Your task to perform on an android device: change the upload size in google photos Image 0: 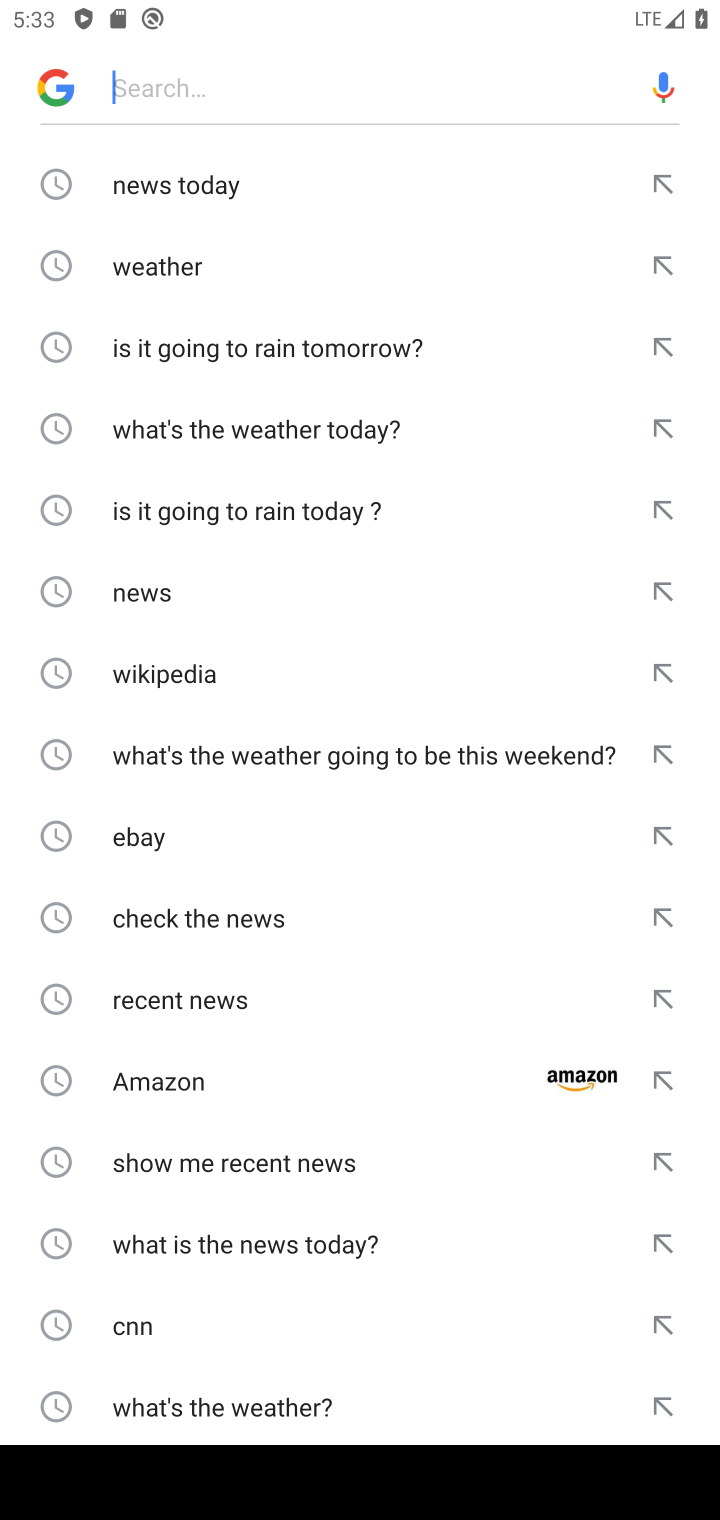
Step 0: press back button
Your task to perform on an android device: change the upload size in google photos Image 1: 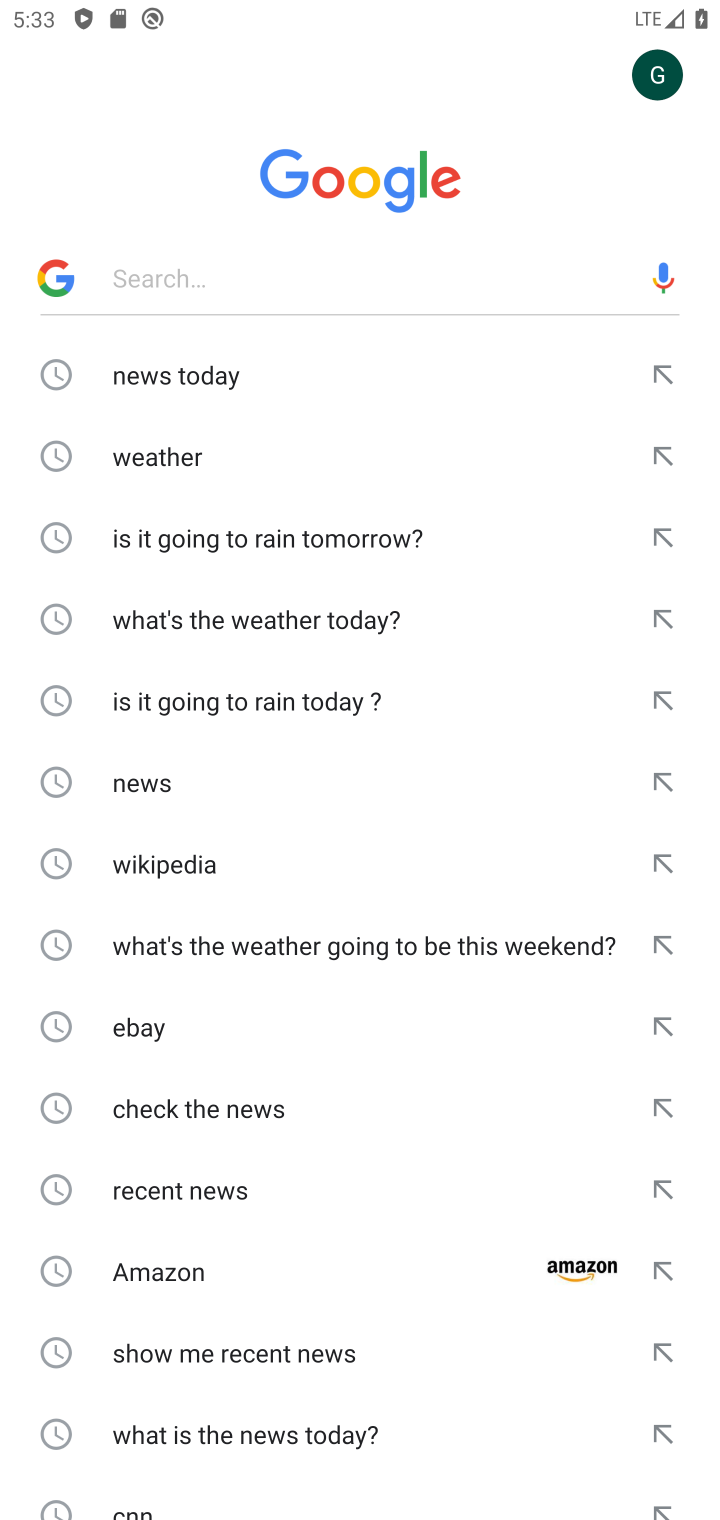
Step 1: press home button
Your task to perform on an android device: change the upload size in google photos Image 2: 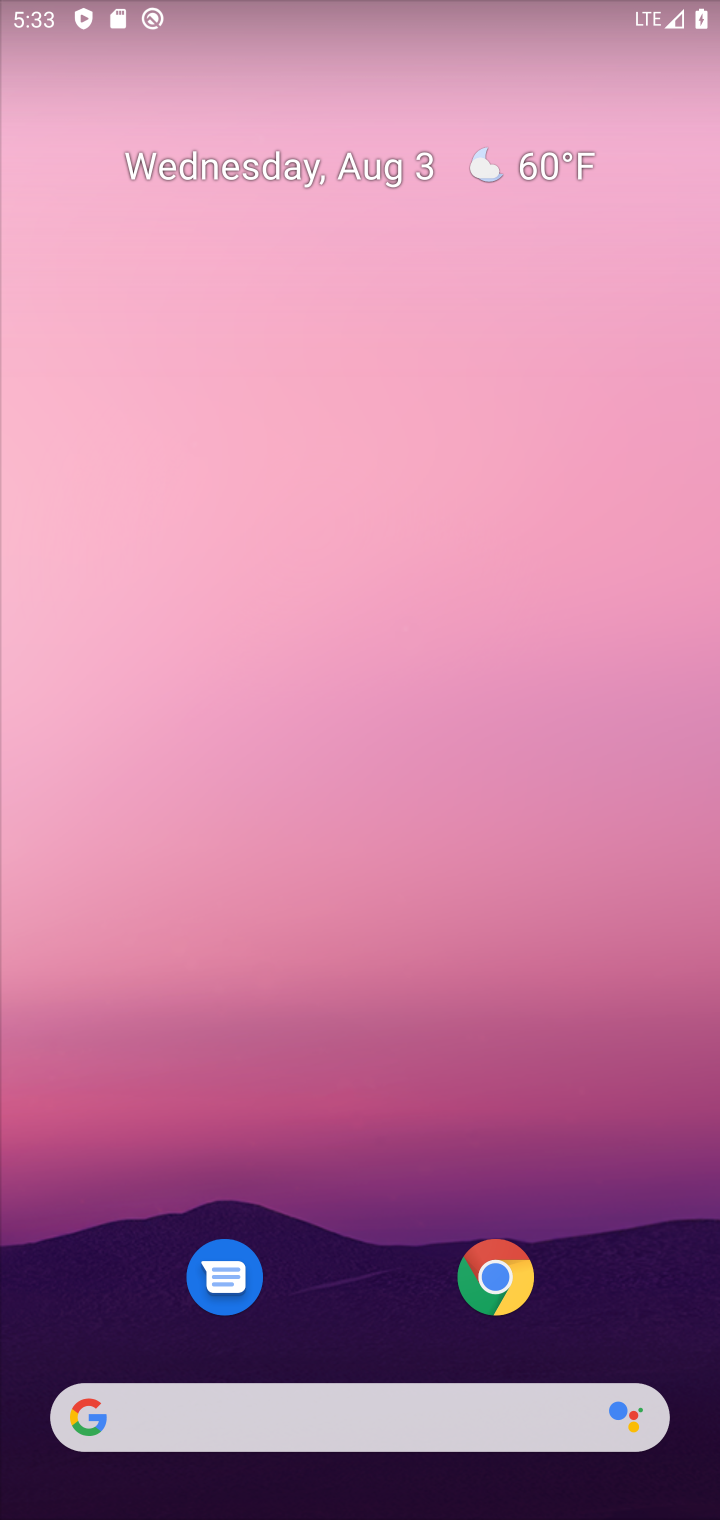
Step 2: drag from (360, 1310) to (449, 162)
Your task to perform on an android device: change the upload size in google photos Image 3: 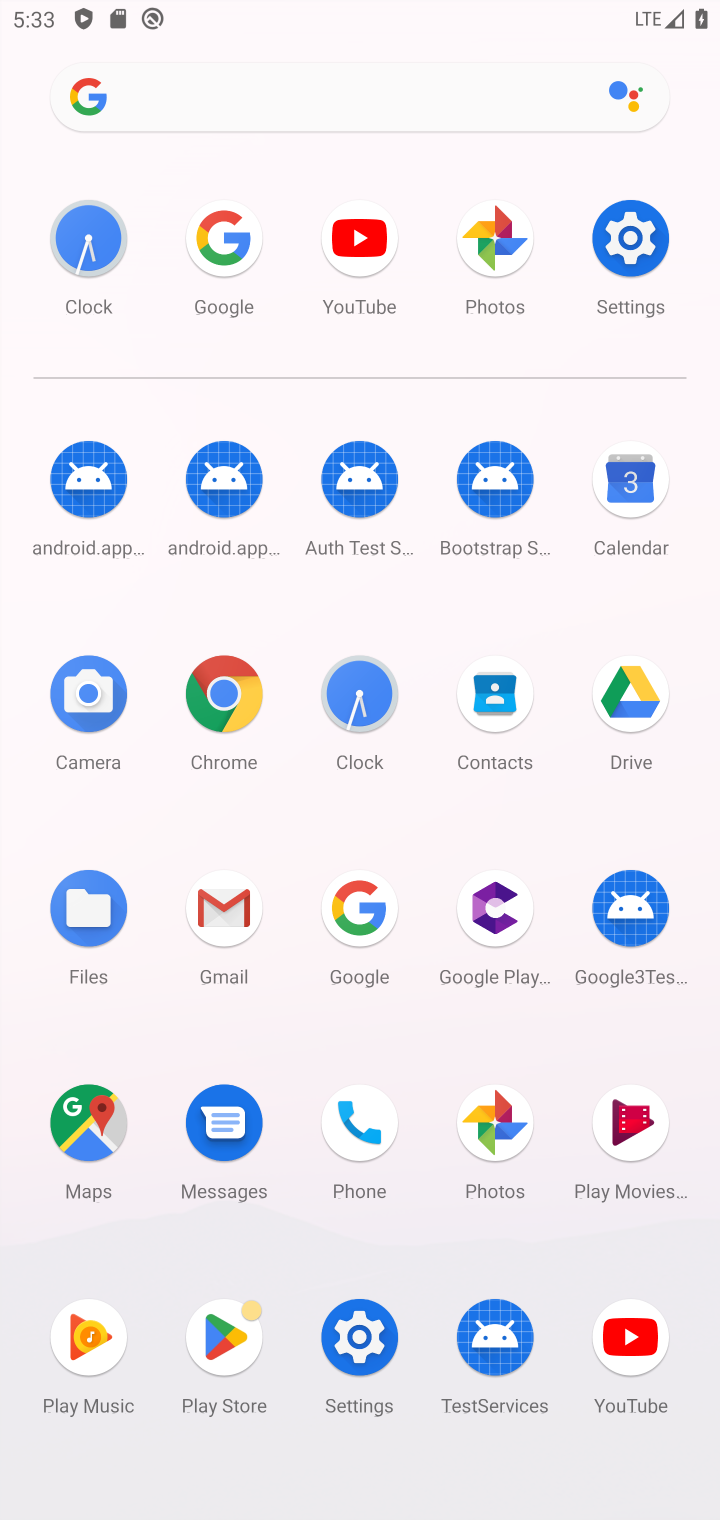
Step 3: click (480, 1123)
Your task to perform on an android device: change the upload size in google photos Image 4: 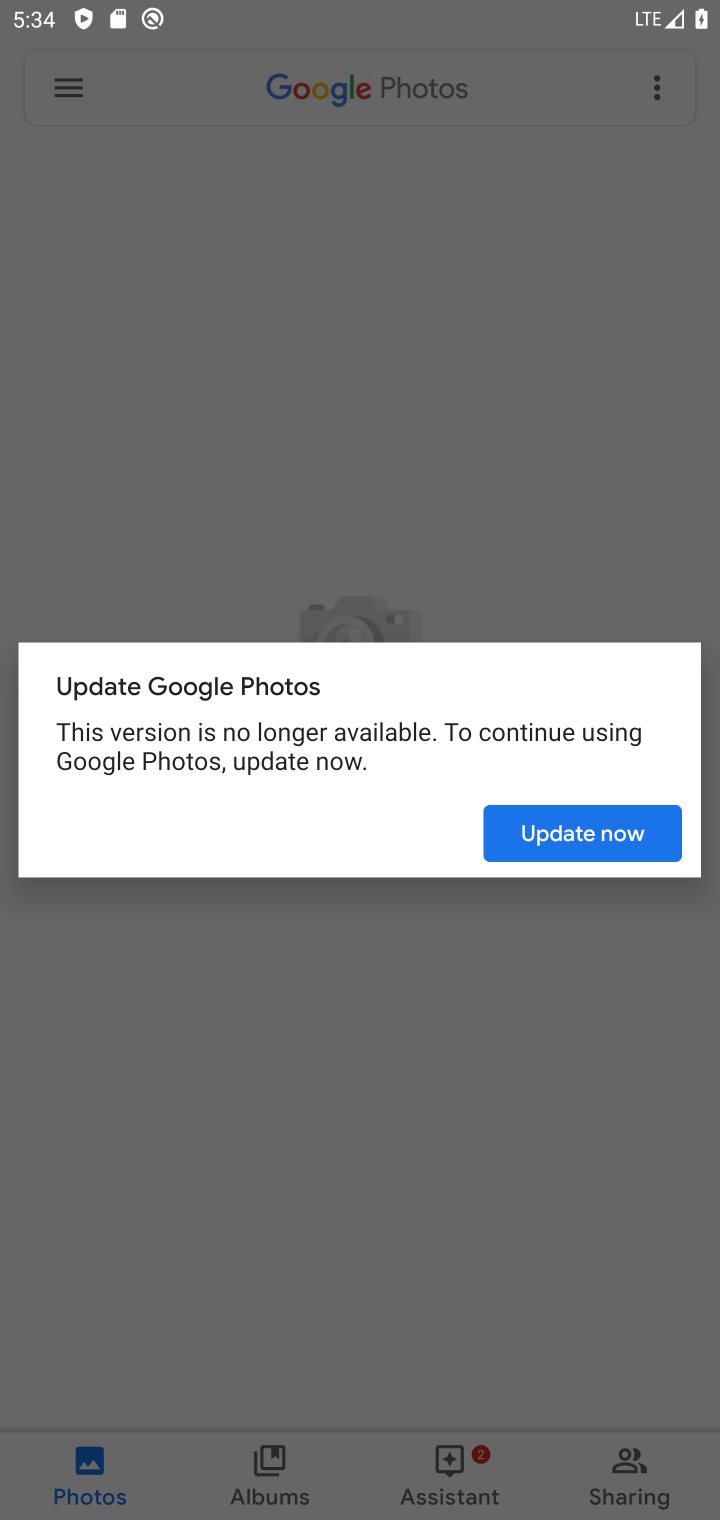
Step 4: click (186, 242)
Your task to perform on an android device: change the upload size in google photos Image 5: 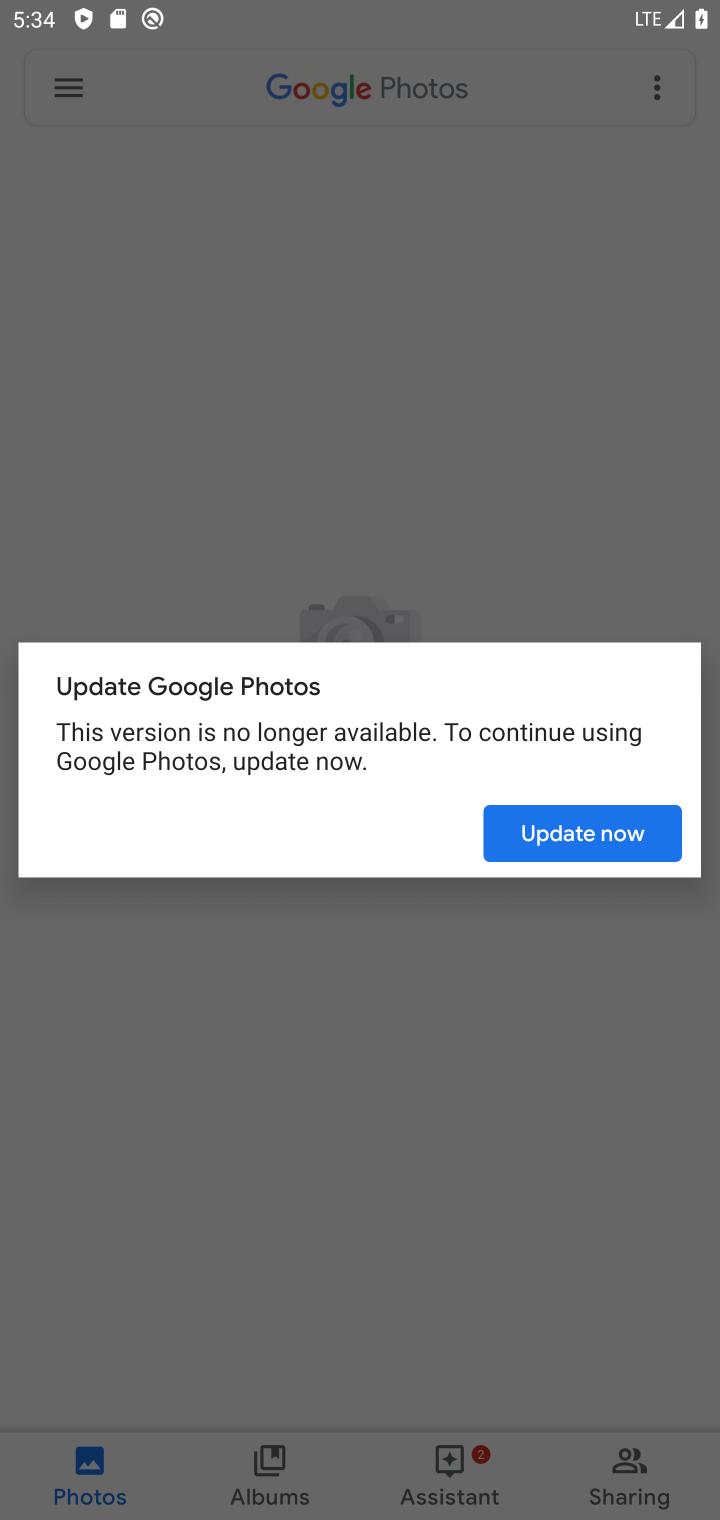
Step 5: press back button
Your task to perform on an android device: change the upload size in google photos Image 6: 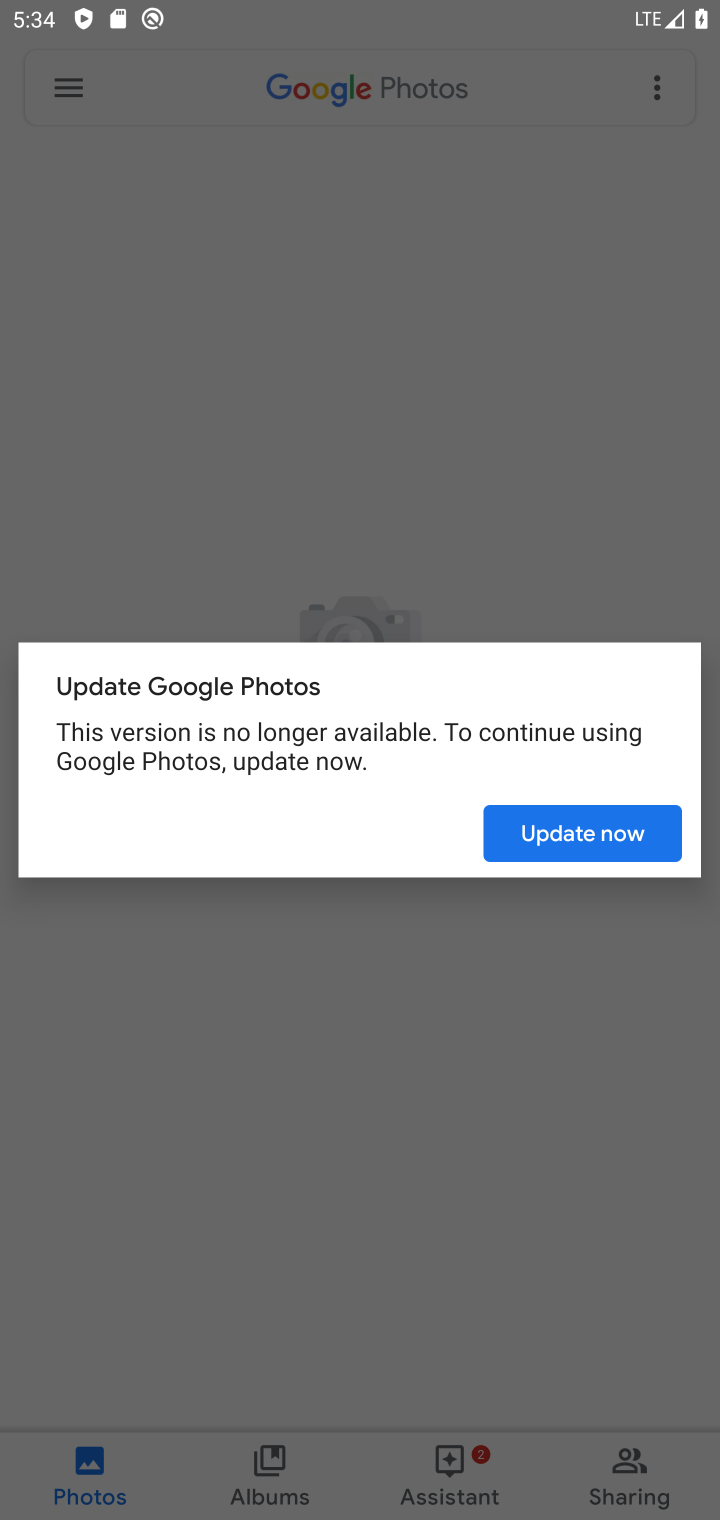
Step 6: press home button
Your task to perform on an android device: change the upload size in google photos Image 7: 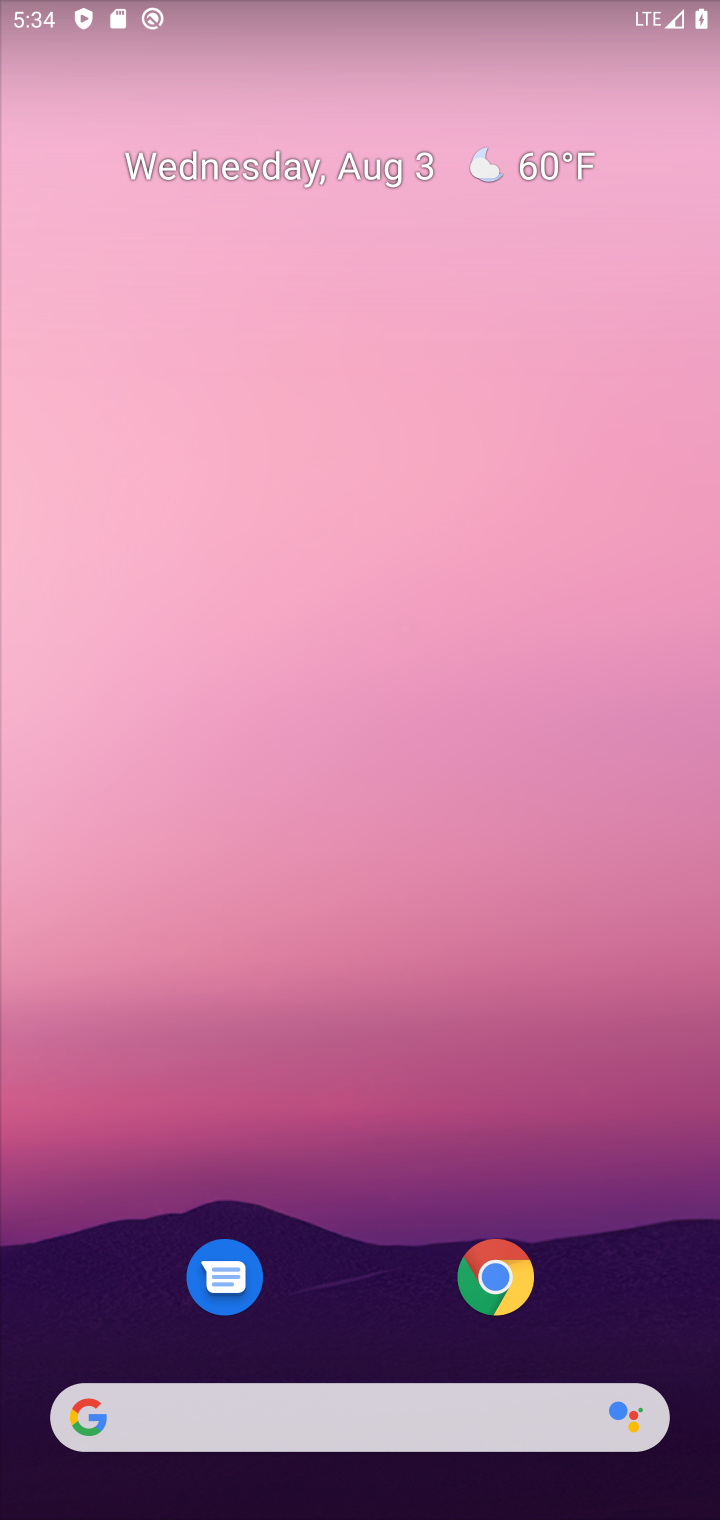
Step 7: drag from (401, 1303) to (401, 169)
Your task to perform on an android device: change the upload size in google photos Image 8: 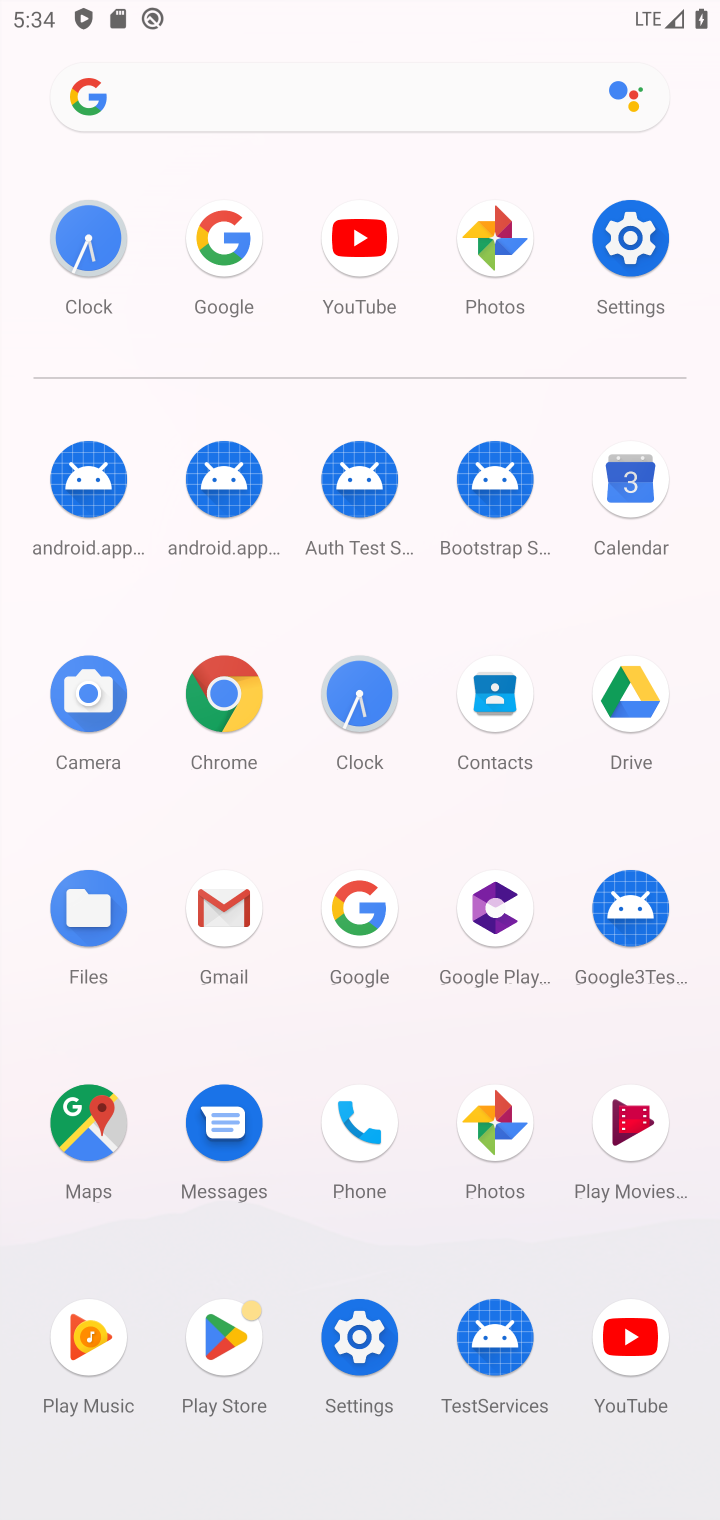
Step 8: click (485, 257)
Your task to perform on an android device: change the upload size in google photos Image 9: 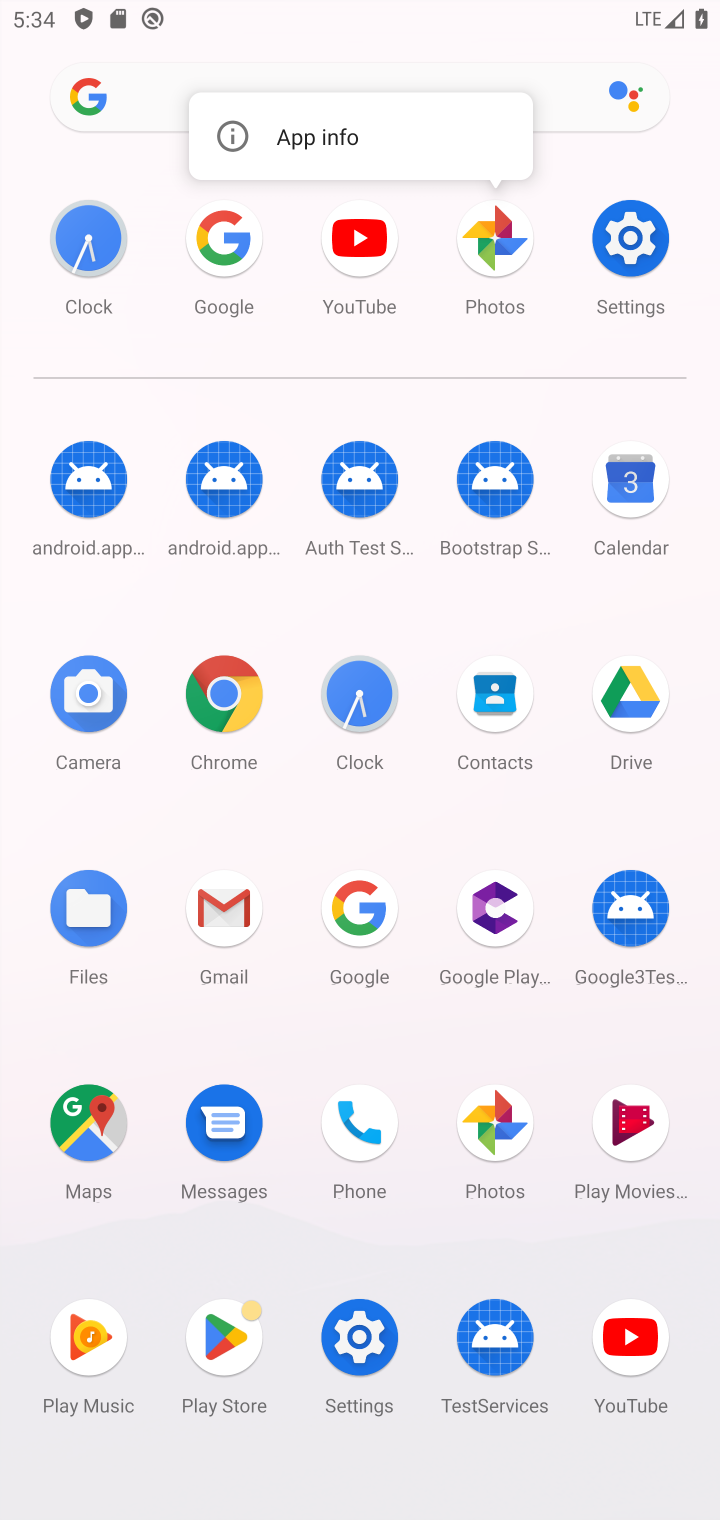
Step 9: click (488, 248)
Your task to perform on an android device: change the upload size in google photos Image 10: 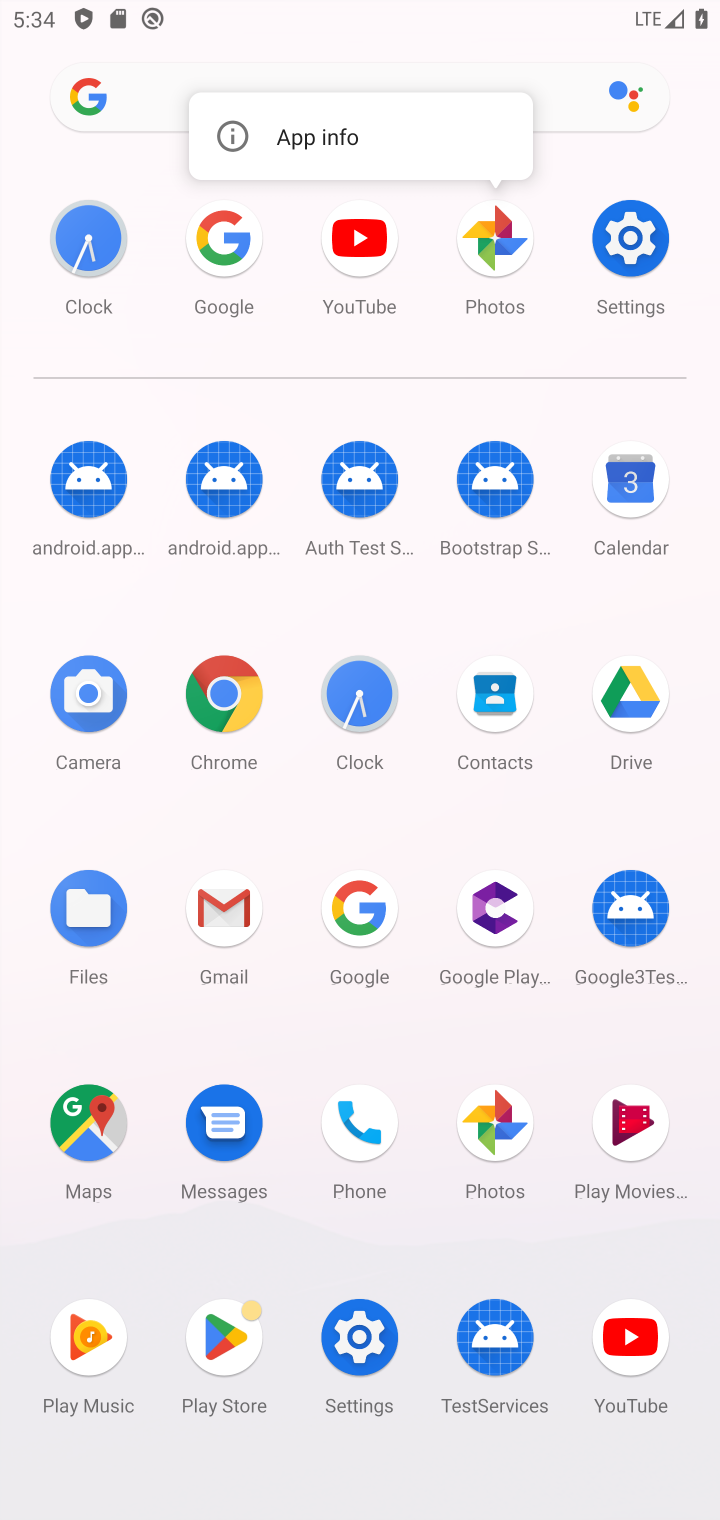
Step 10: click (482, 253)
Your task to perform on an android device: change the upload size in google photos Image 11: 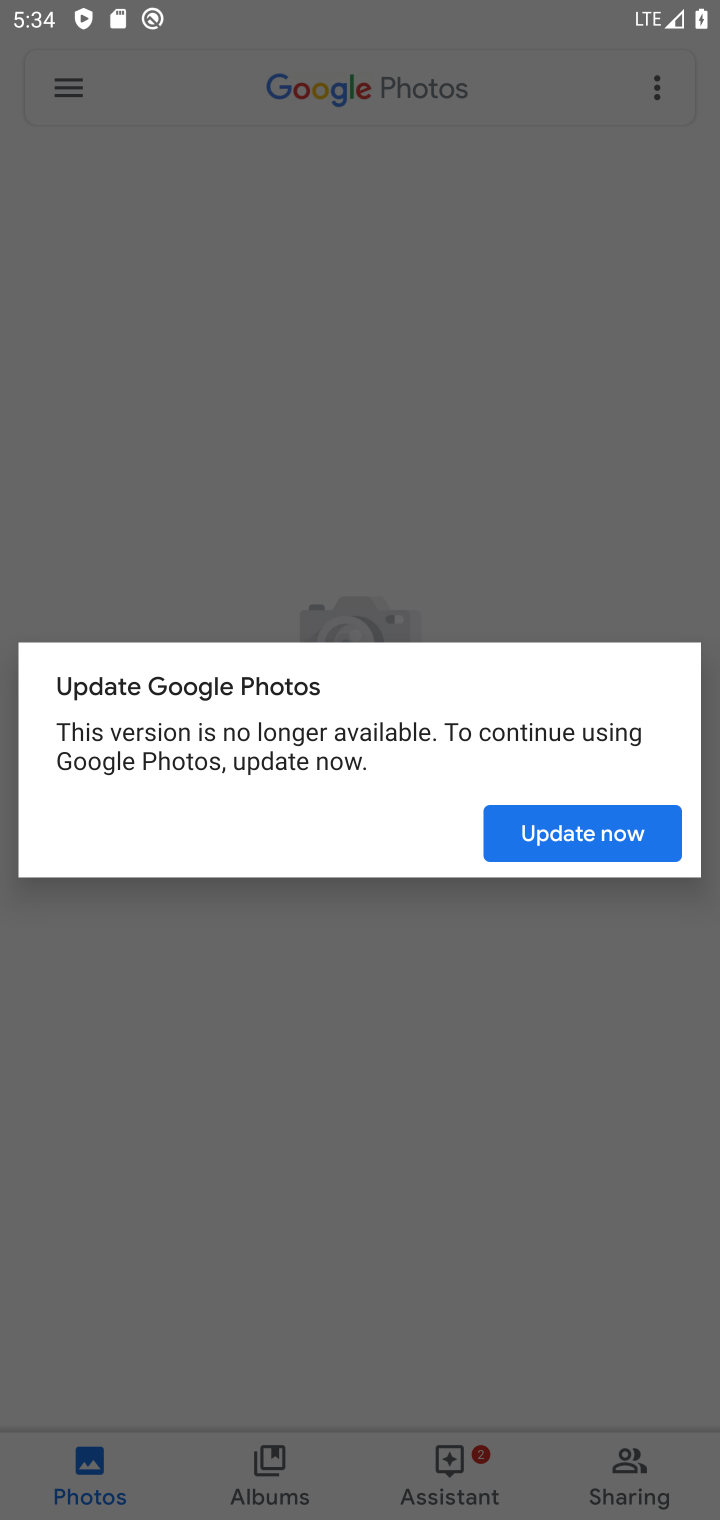
Step 11: click (584, 834)
Your task to perform on an android device: change the upload size in google photos Image 12: 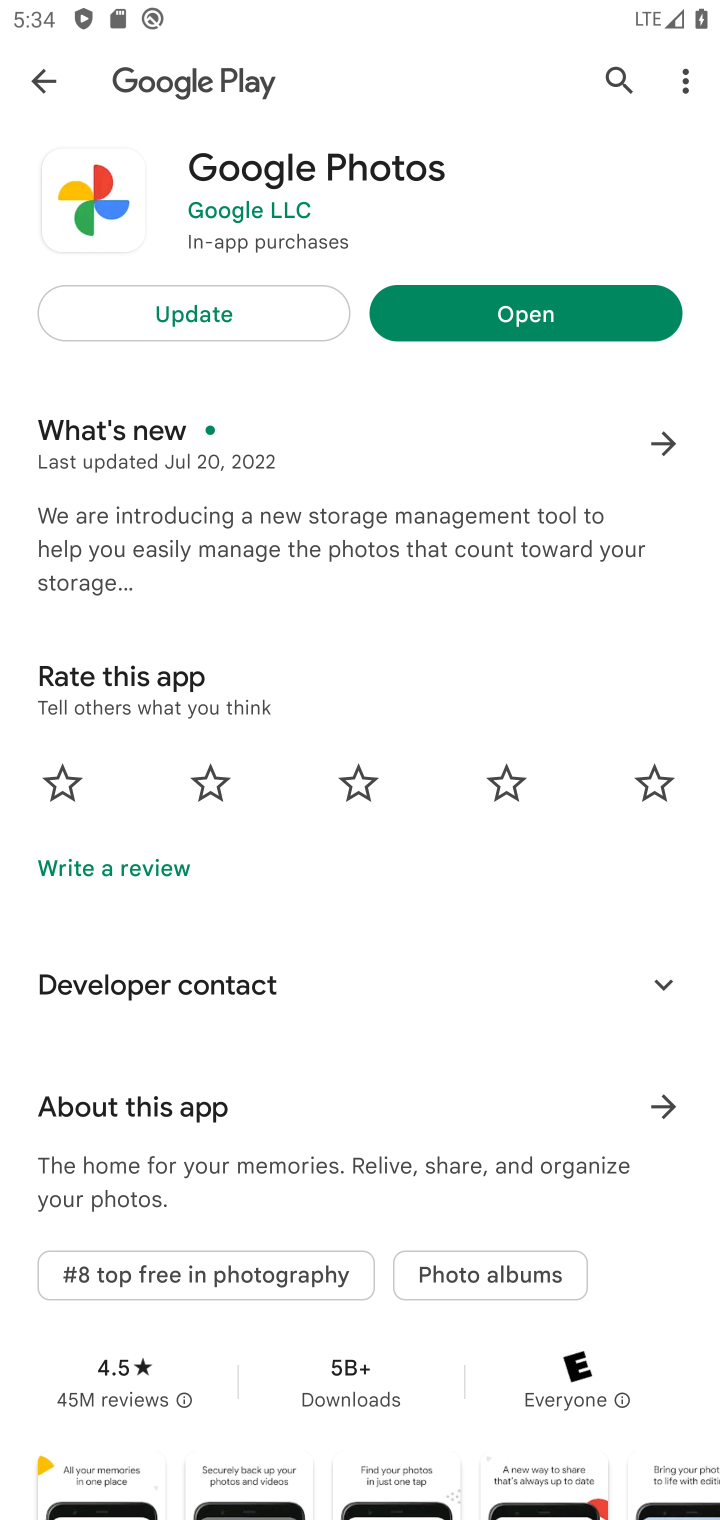
Step 12: click (523, 300)
Your task to perform on an android device: change the upload size in google photos Image 13: 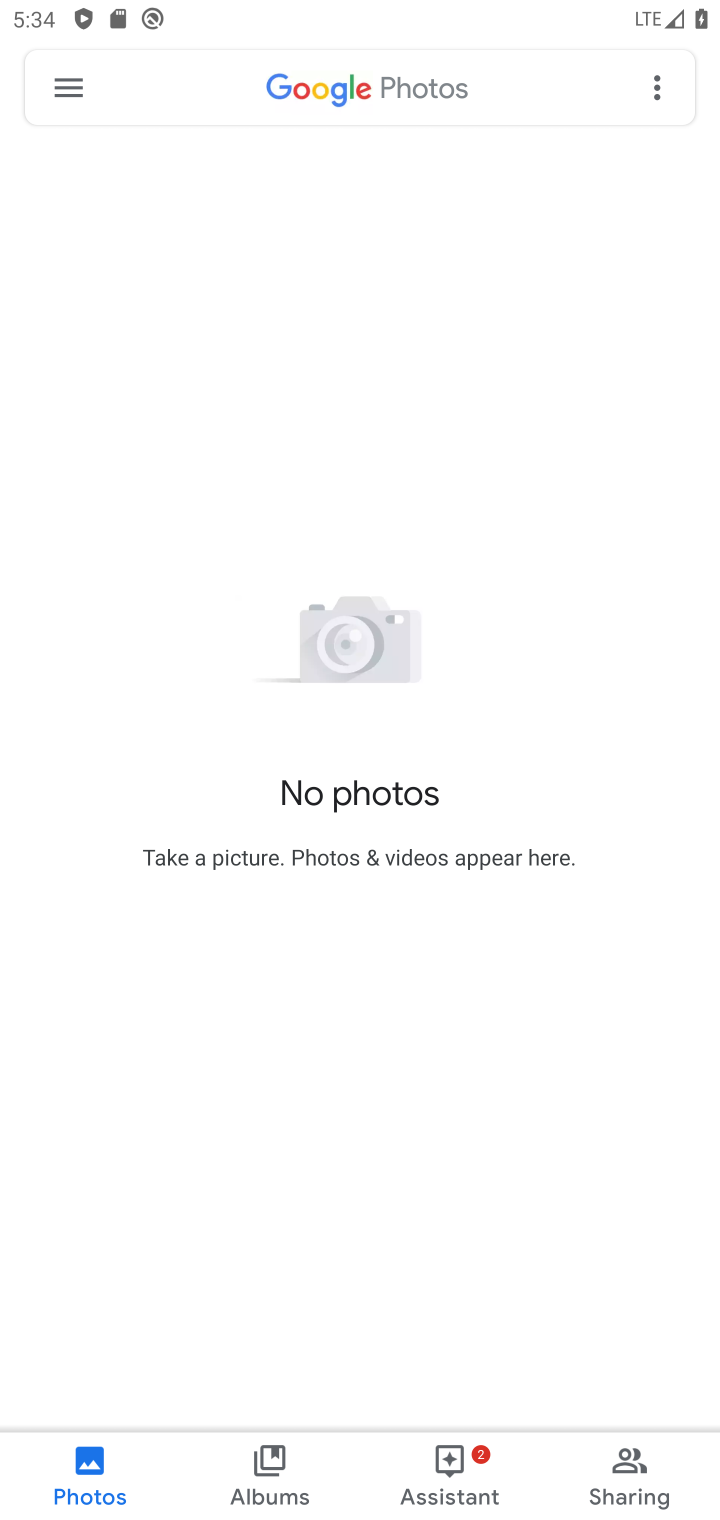
Step 13: click (63, 97)
Your task to perform on an android device: change the upload size in google photos Image 14: 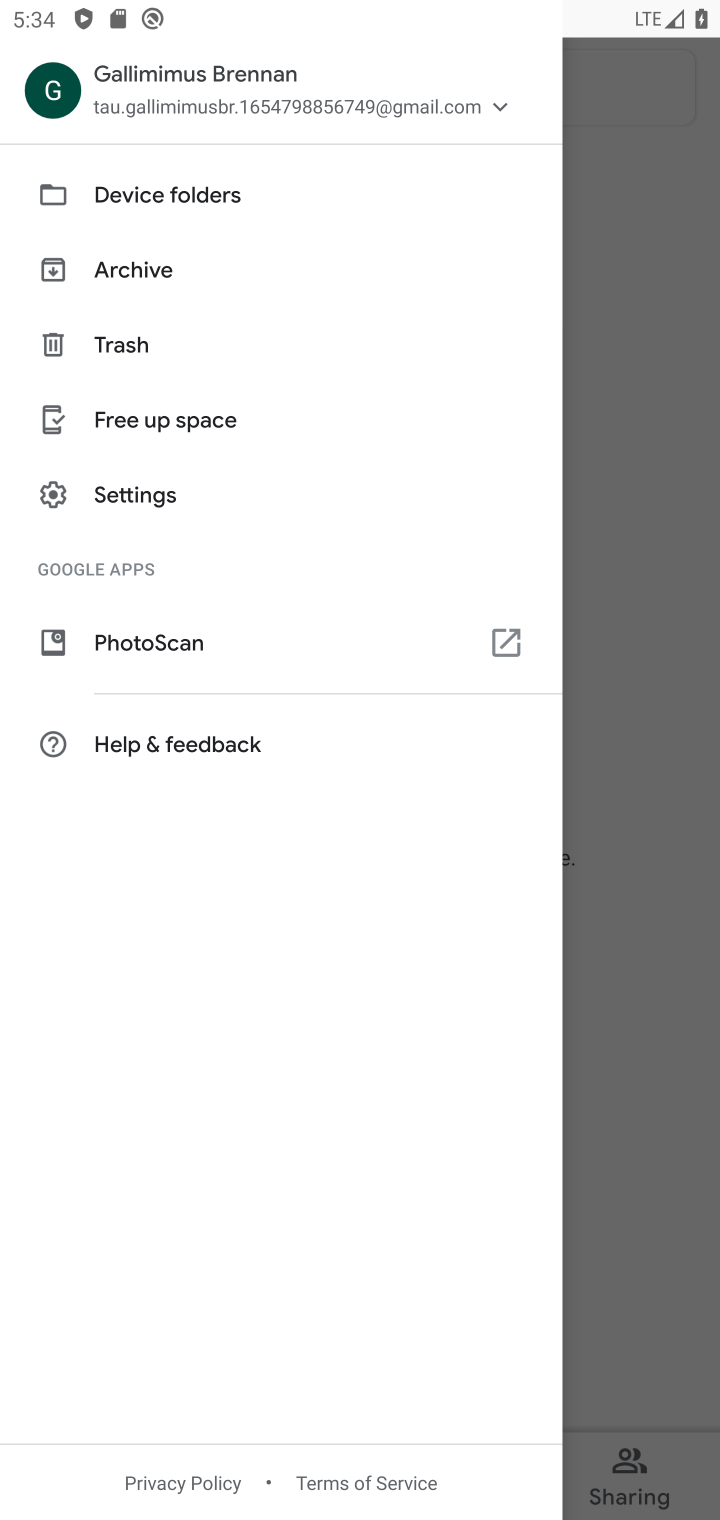
Step 14: click (189, 486)
Your task to perform on an android device: change the upload size in google photos Image 15: 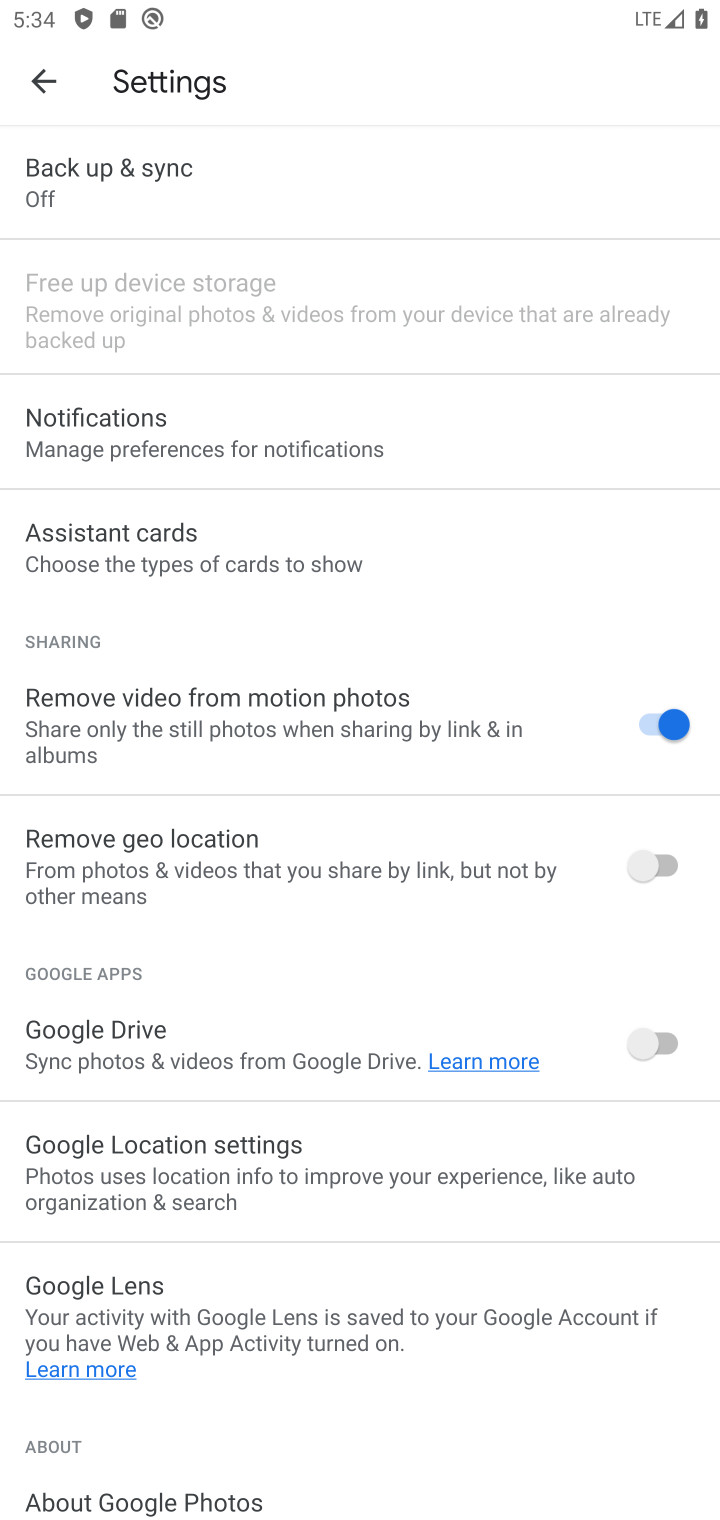
Step 15: click (297, 173)
Your task to perform on an android device: change the upload size in google photos Image 16: 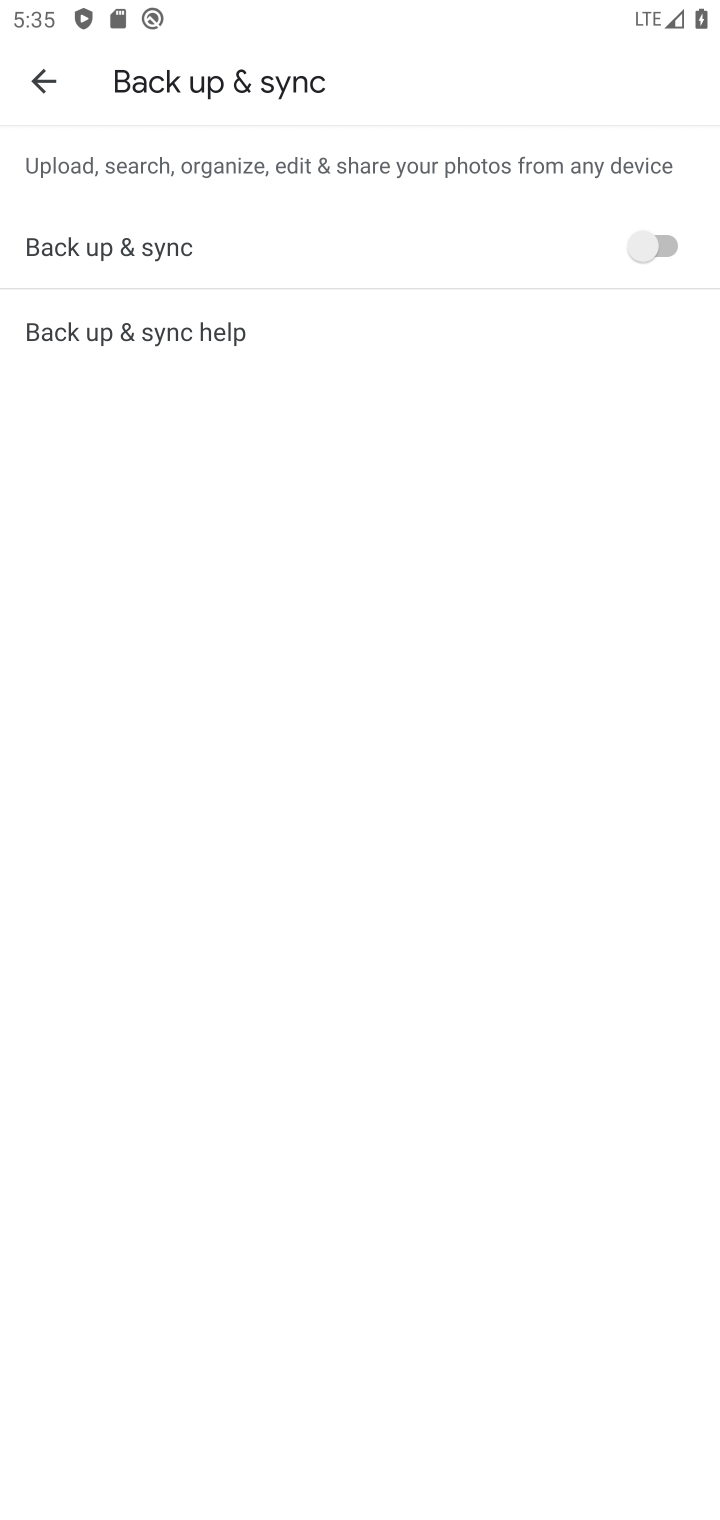
Step 16: click (633, 252)
Your task to perform on an android device: change the upload size in google photos Image 17: 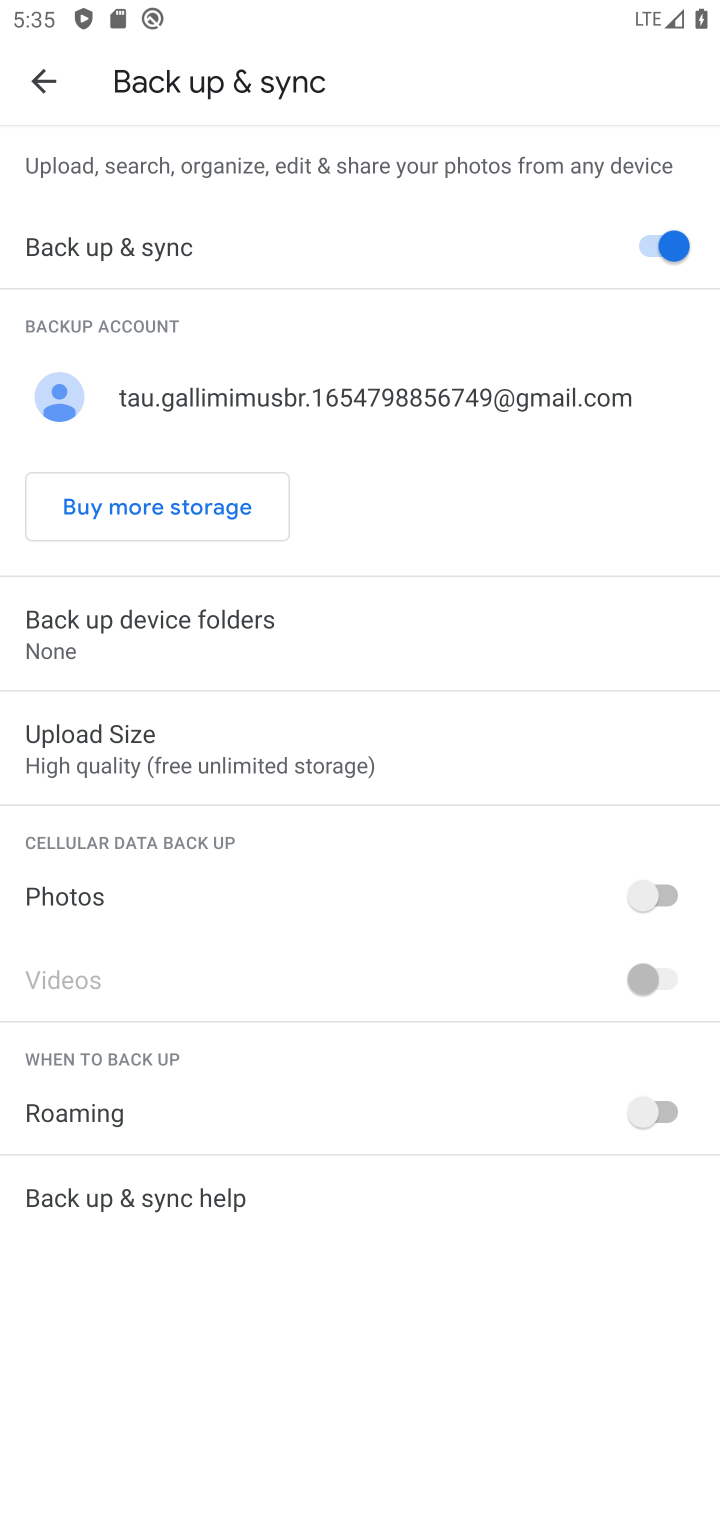
Step 17: click (206, 769)
Your task to perform on an android device: change the upload size in google photos Image 18: 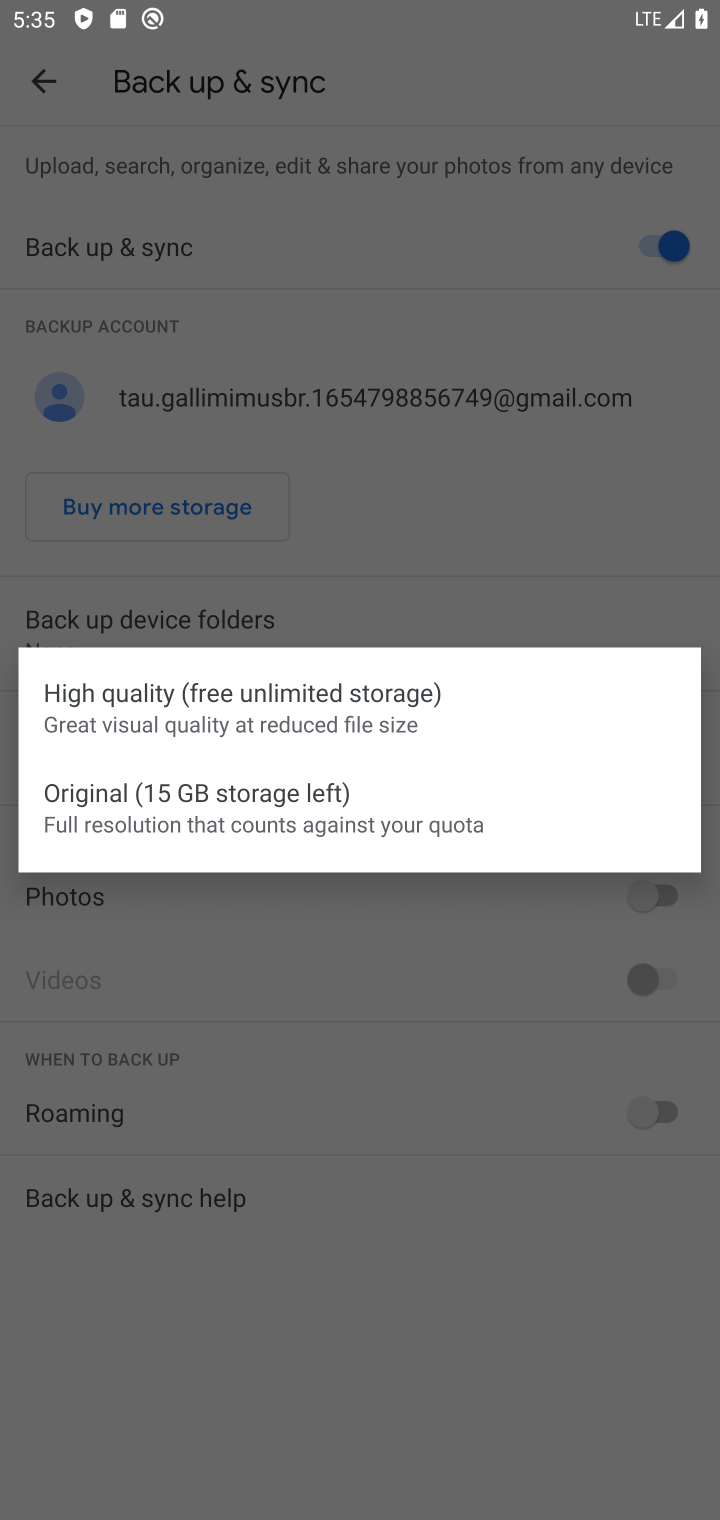
Step 18: click (388, 1047)
Your task to perform on an android device: change the upload size in google photos Image 19: 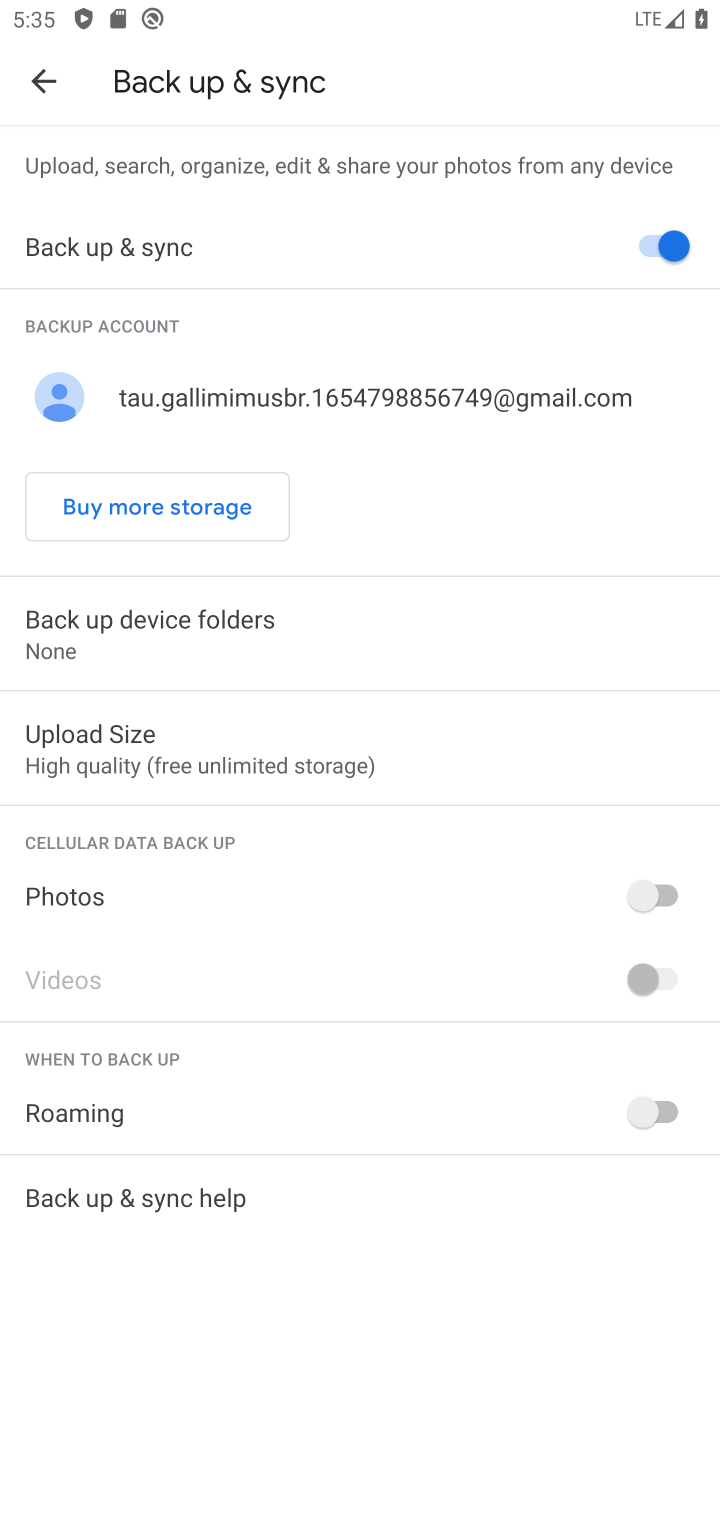
Step 19: click (132, 760)
Your task to perform on an android device: change the upload size in google photos Image 20: 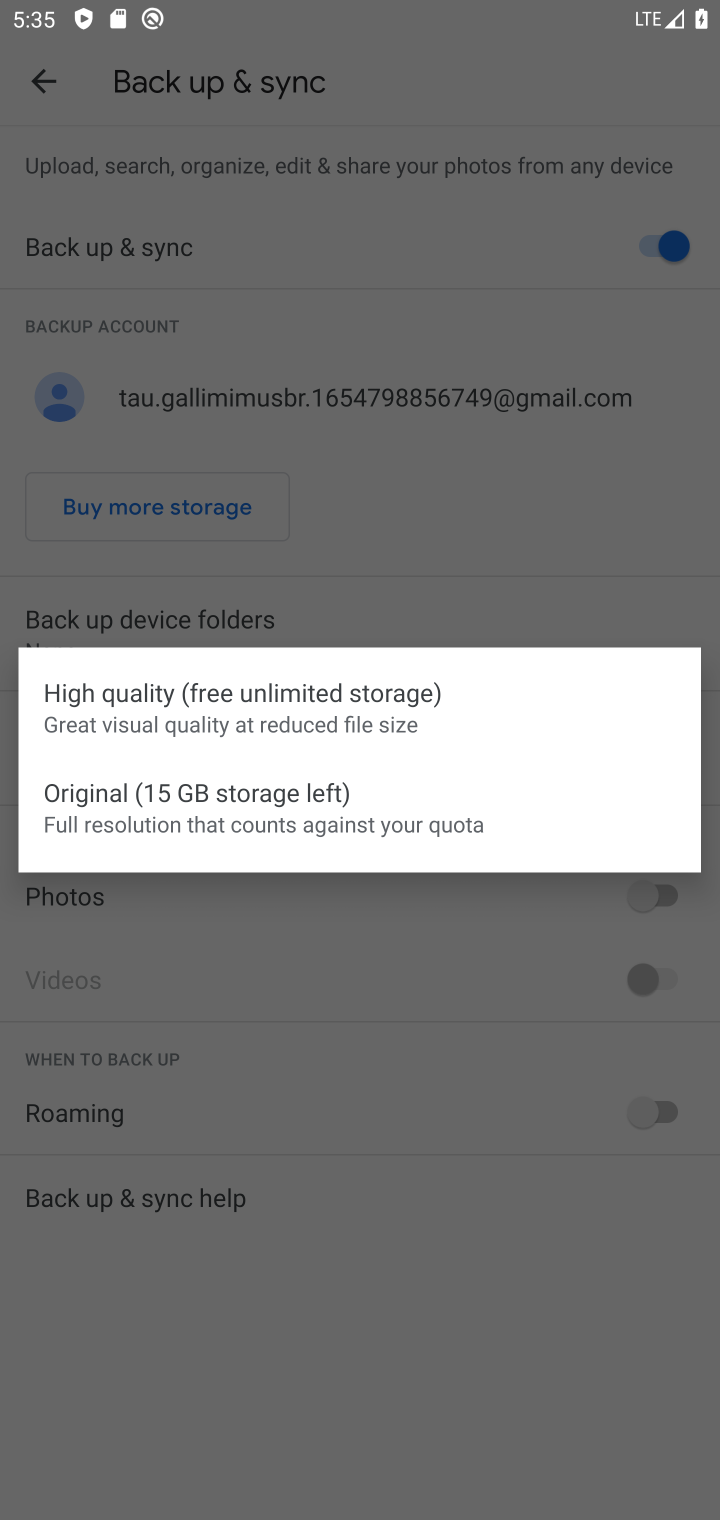
Step 20: click (171, 827)
Your task to perform on an android device: change the upload size in google photos Image 21: 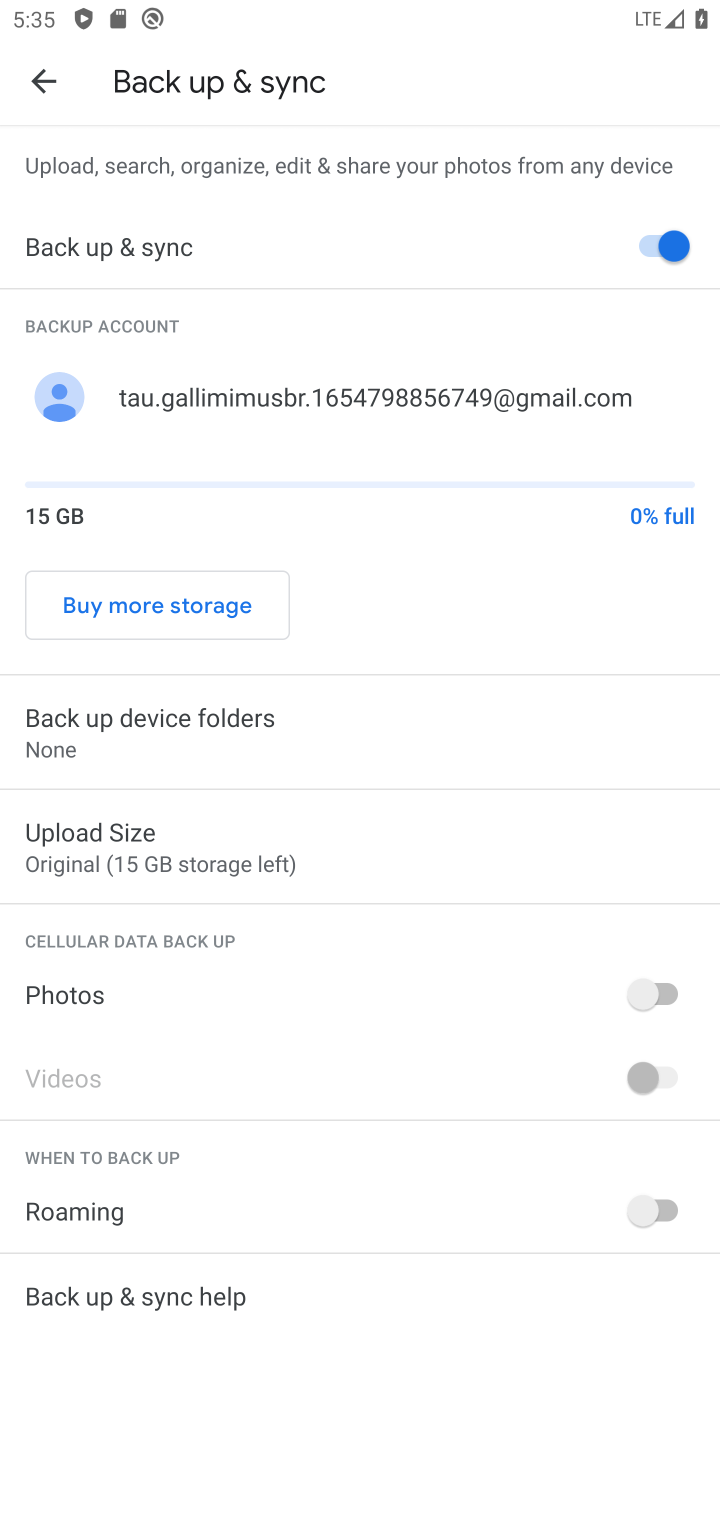
Step 21: task complete